Your task to perform on an android device: Open Reddit.com Image 0: 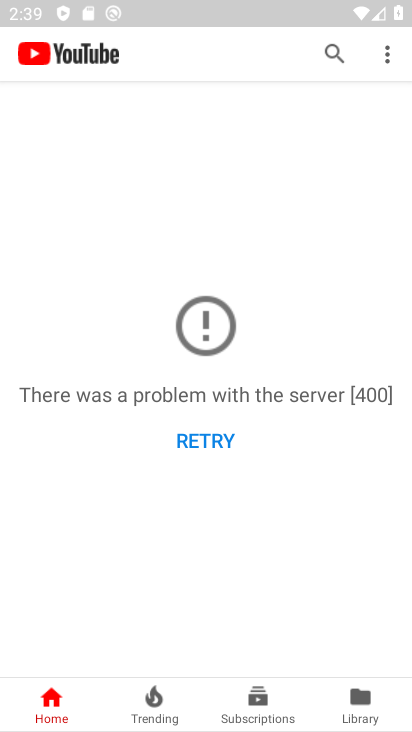
Step 0: press home button
Your task to perform on an android device: Open Reddit.com Image 1: 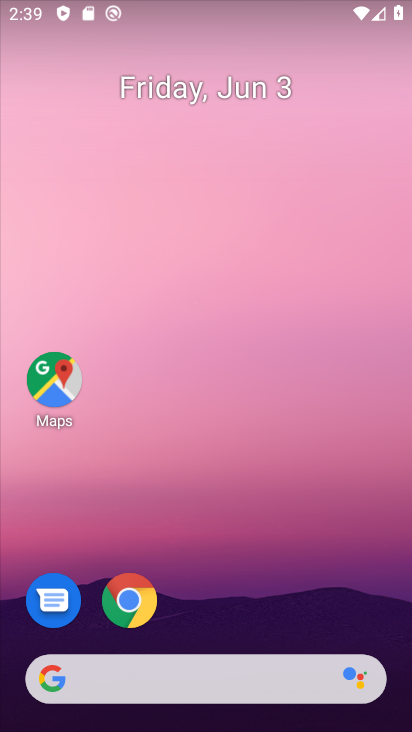
Step 1: click (143, 603)
Your task to perform on an android device: Open Reddit.com Image 2: 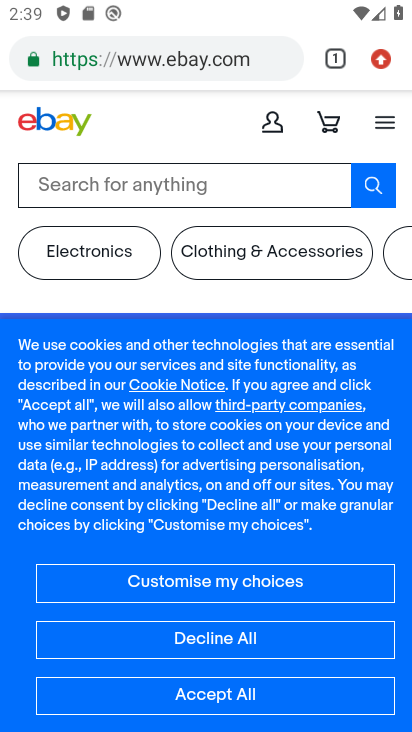
Step 2: click (246, 55)
Your task to perform on an android device: Open Reddit.com Image 3: 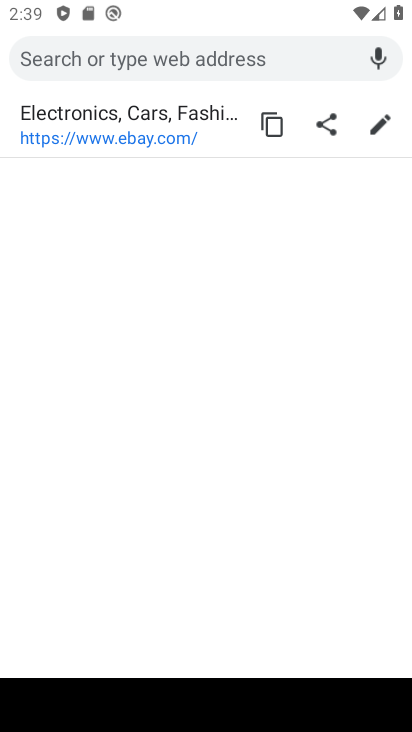
Step 3: type "reddit"
Your task to perform on an android device: Open Reddit.com Image 4: 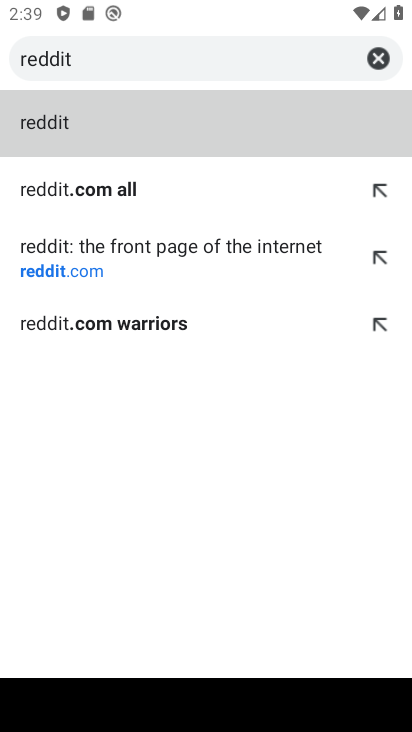
Step 4: click (121, 248)
Your task to perform on an android device: Open Reddit.com Image 5: 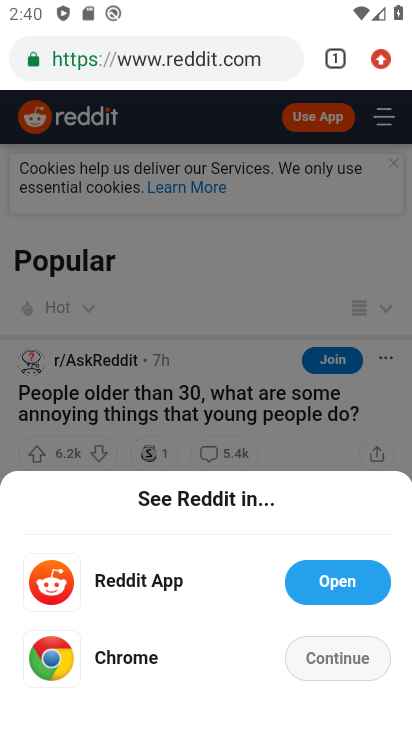
Step 5: click (319, 661)
Your task to perform on an android device: Open Reddit.com Image 6: 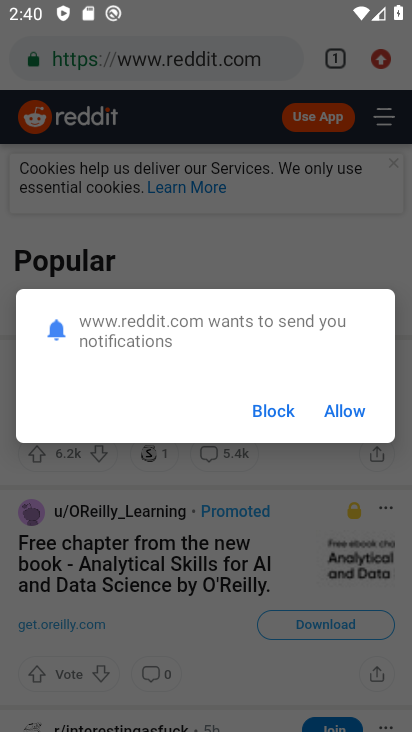
Step 6: click (318, 662)
Your task to perform on an android device: Open Reddit.com Image 7: 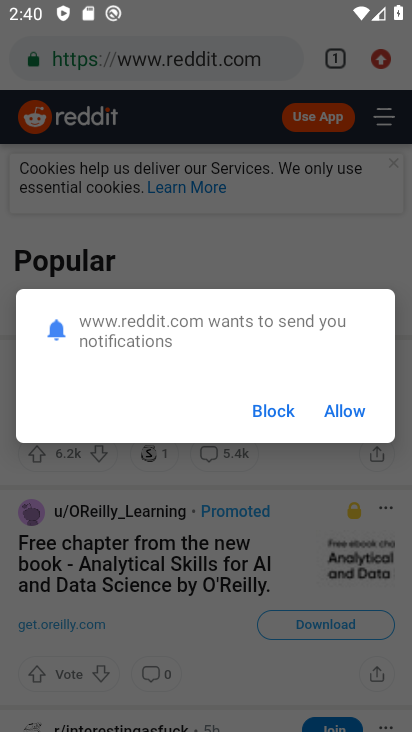
Step 7: click (318, 662)
Your task to perform on an android device: Open Reddit.com Image 8: 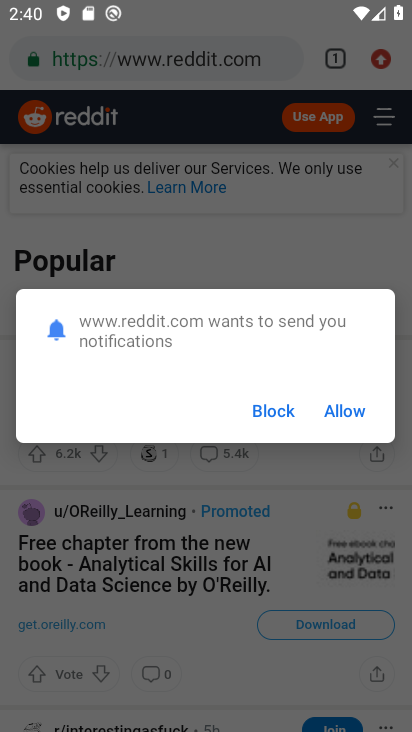
Step 8: click (344, 409)
Your task to perform on an android device: Open Reddit.com Image 9: 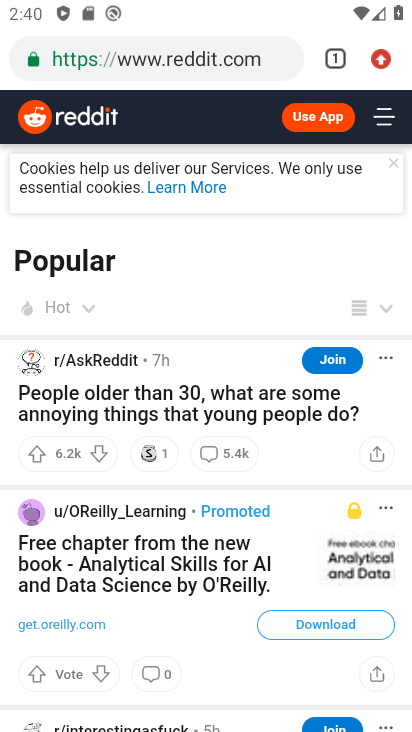
Step 9: task complete